Your task to perform on an android device: toggle show notifications on the lock screen Image 0: 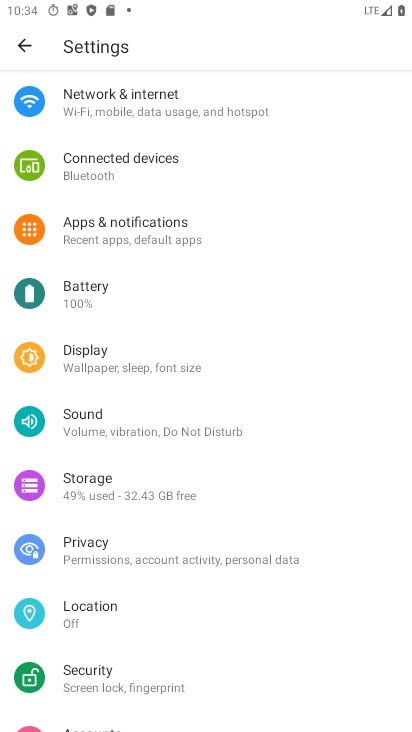
Step 0: click (138, 234)
Your task to perform on an android device: toggle show notifications on the lock screen Image 1: 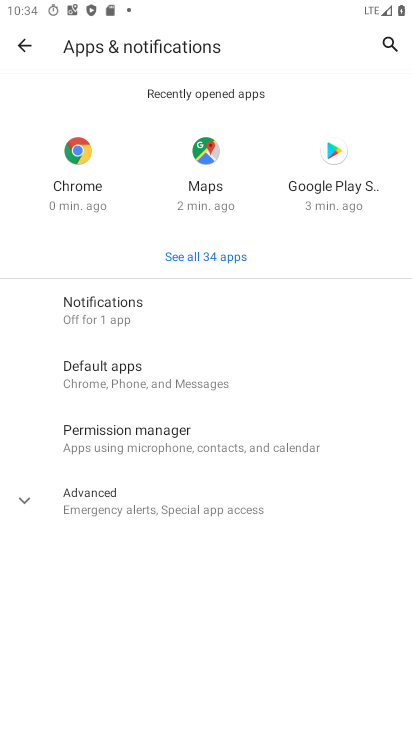
Step 1: click (97, 313)
Your task to perform on an android device: toggle show notifications on the lock screen Image 2: 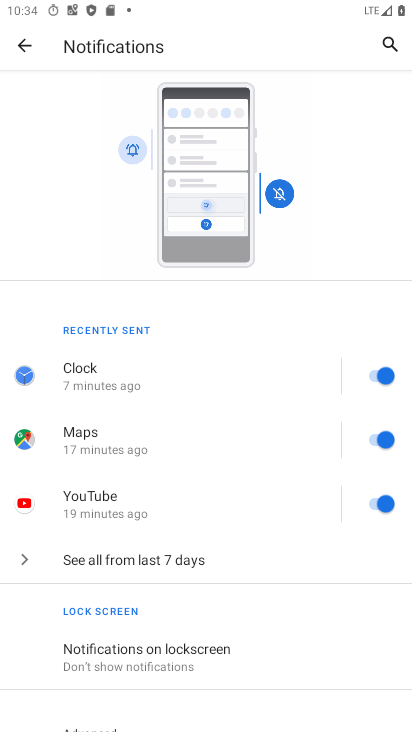
Step 2: drag from (205, 577) to (180, 335)
Your task to perform on an android device: toggle show notifications on the lock screen Image 3: 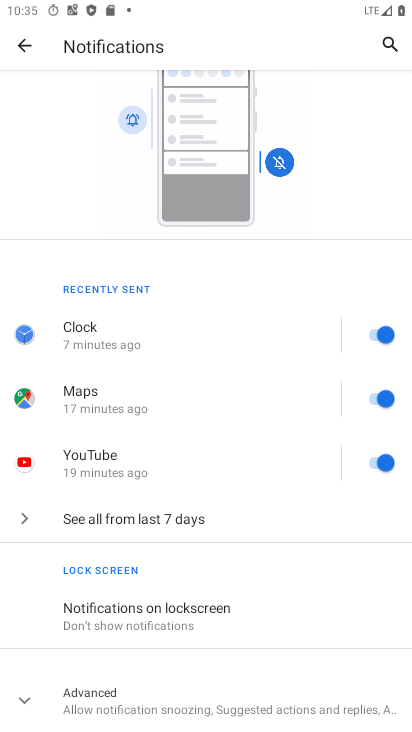
Step 3: click (123, 619)
Your task to perform on an android device: toggle show notifications on the lock screen Image 4: 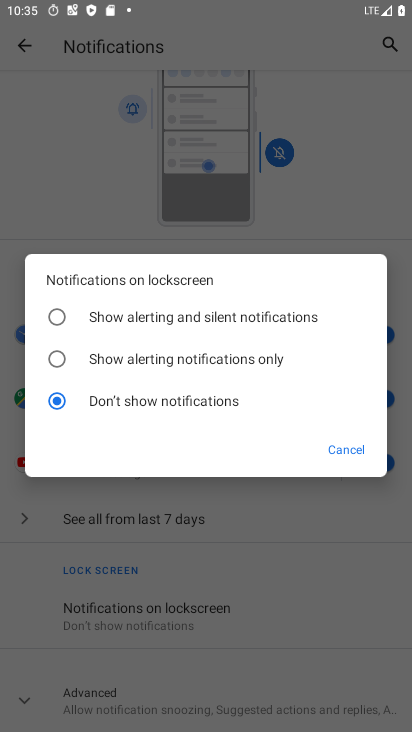
Step 4: click (53, 311)
Your task to perform on an android device: toggle show notifications on the lock screen Image 5: 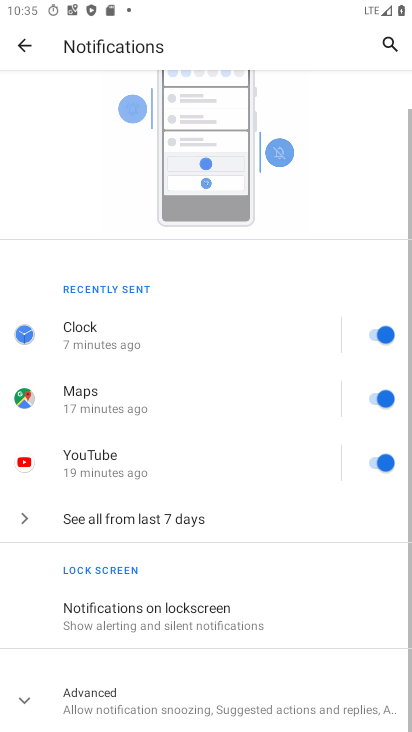
Step 5: task complete